Your task to perform on an android device: turn off notifications settings in the gmail app Image 0: 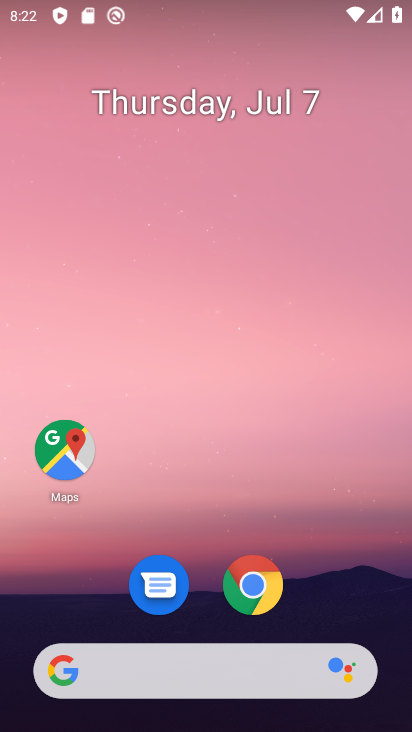
Step 0: drag from (276, 506) to (261, 11)
Your task to perform on an android device: turn off notifications settings in the gmail app Image 1: 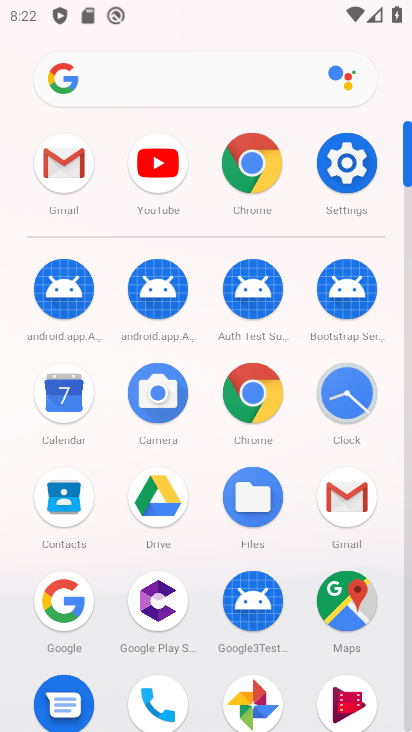
Step 1: click (74, 161)
Your task to perform on an android device: turn off notifications settings in the gmail app Image 2: 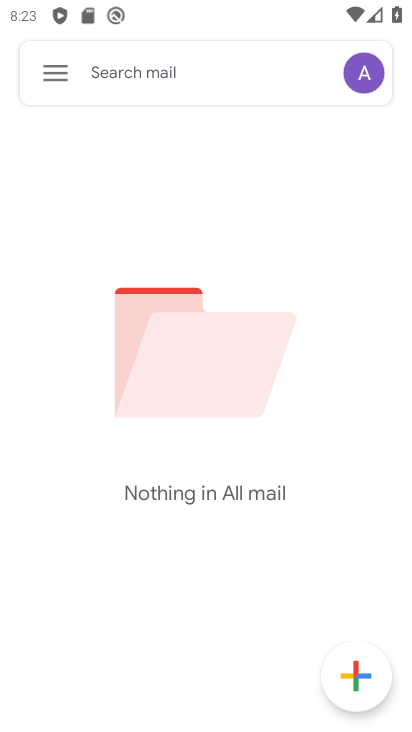
Step 2: click (60, 73)
Your task to perform on an android device: turn off notifications settings in the gmail app Image 3: 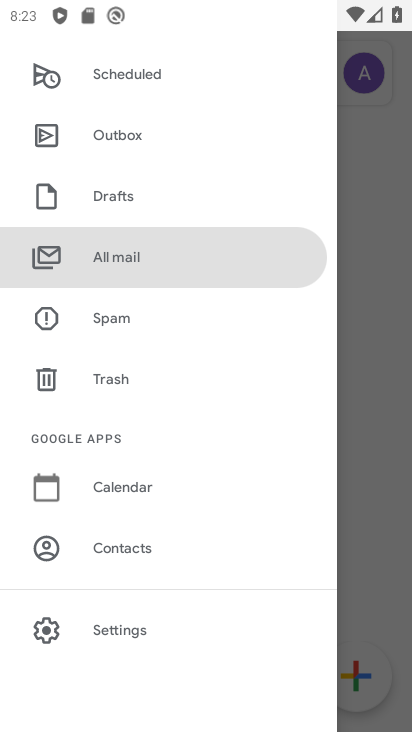
Step 3: click (130, 624)
Your task to perform on an android device: turn off notifications settings in the gmail app Image 4: 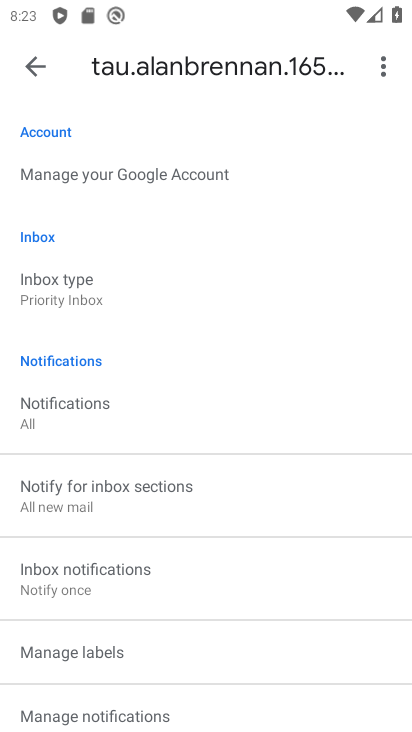
Step 4: drag from (274, 356) to (246, 169)
Your task to perform on an android device: turn off notifications settings in the gmail app Image 5: 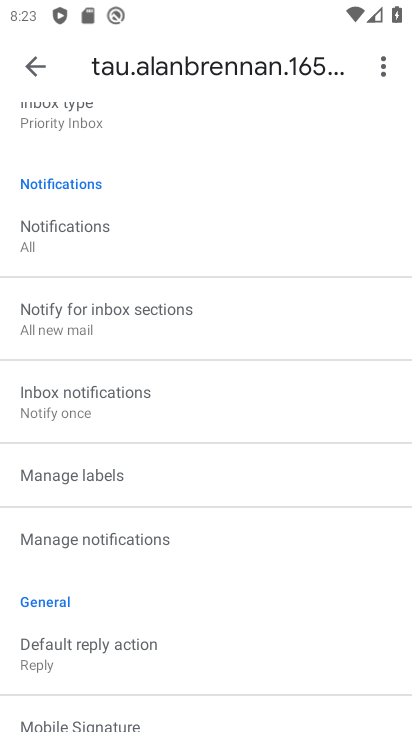
Step 5: click (214, 533)
Your task to perform on an android device: turn off notifications settings in the gmail app Image 6: 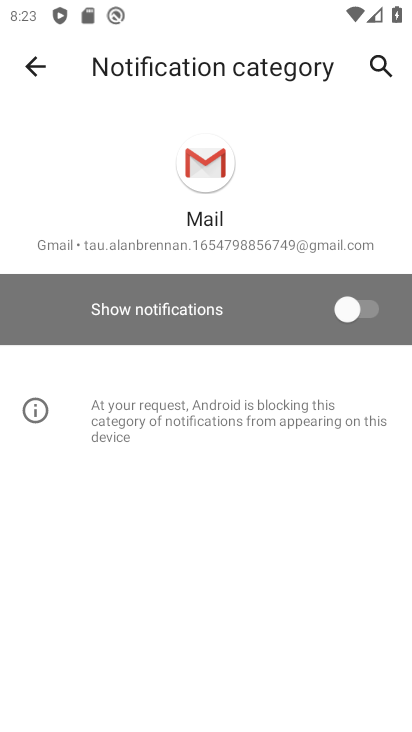
Step 6: task complete